Your task to perform on an android device: Open Yahoo.com Image 0: 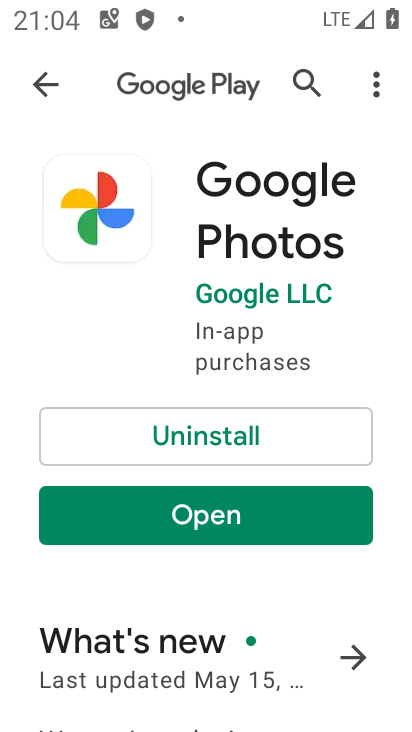
Step 0: press home button
Your task to perform on an android device: Open Yahoo.com Image 1: 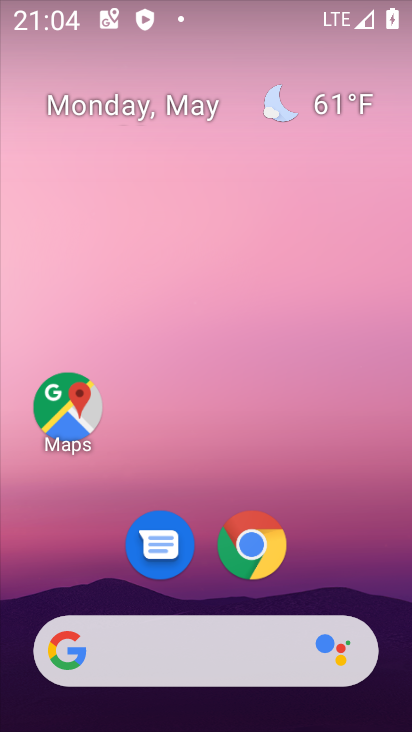
Step 1: click (255, 564)
Your task to perform on an android device: Open Yahoo.com Image 2: 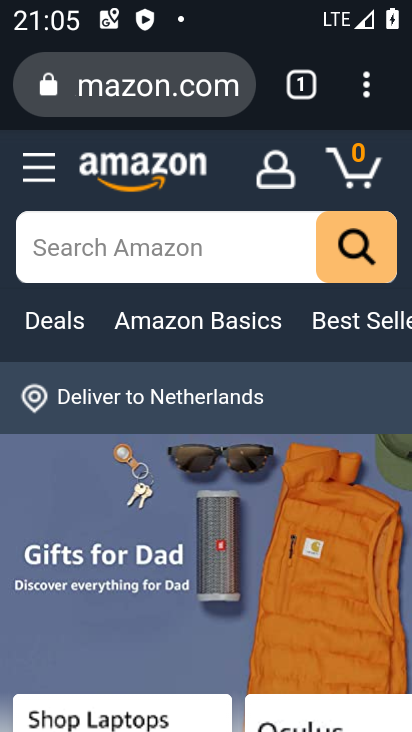
Step 2: click (160, 78)
Your task to perform on an android device: Open Yahoo.com Image 3: 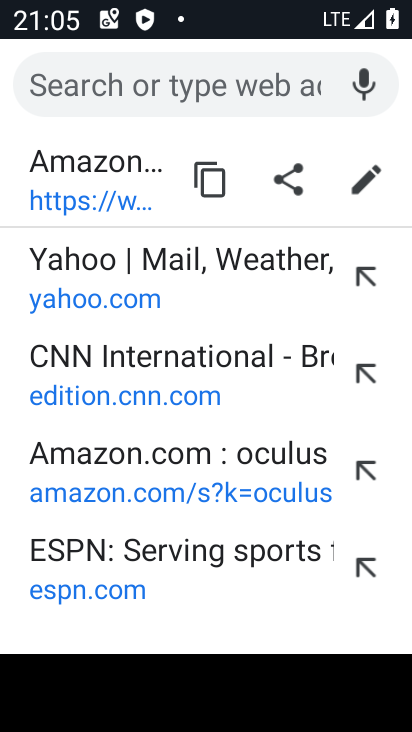
Step 3: click (135, 306)
Your task to perform on an android device: Open Yahoo.com Image 4: 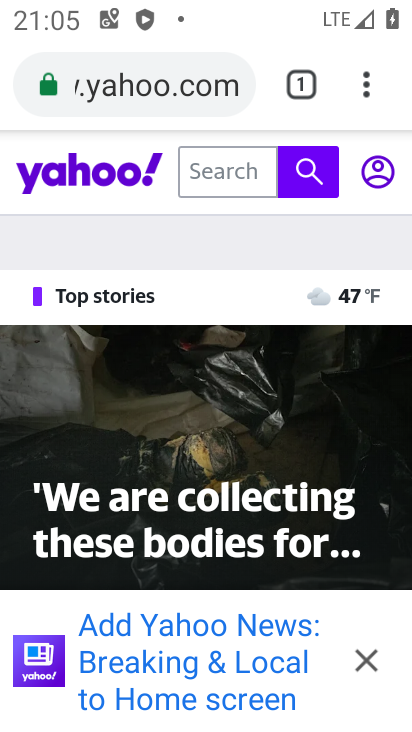
Step 4: task complete